Your task to perform on an android device: toggle pop-ups in chrome Image 0: 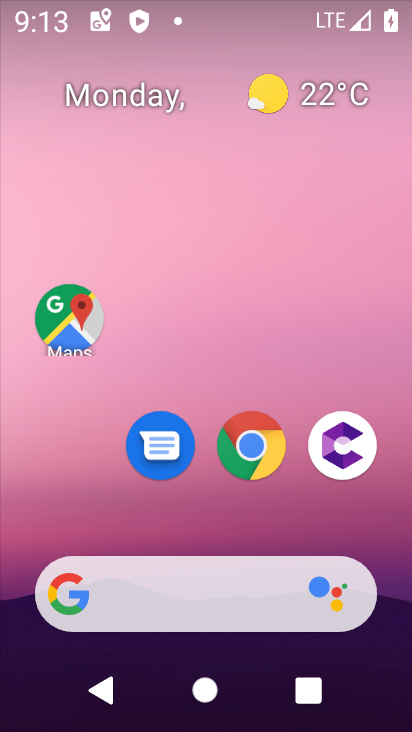
Step 0: press home button
Your task to perform on an android device: toggle pop-ups in chrome Image 1: 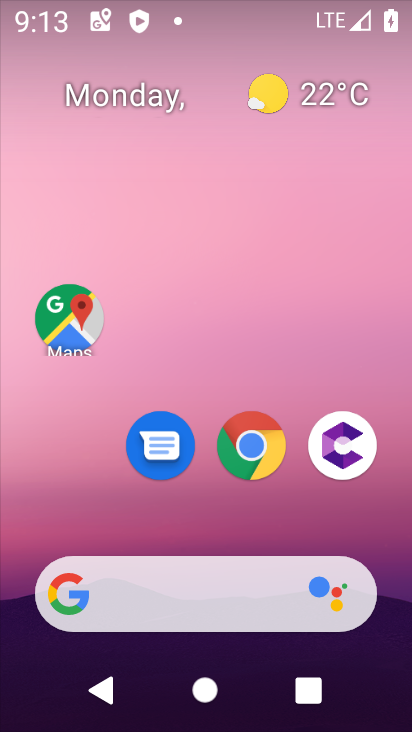
Step 1: click (255, 449)
Your task to perform on an android device: toggle pop-ups in chrome Image 2: 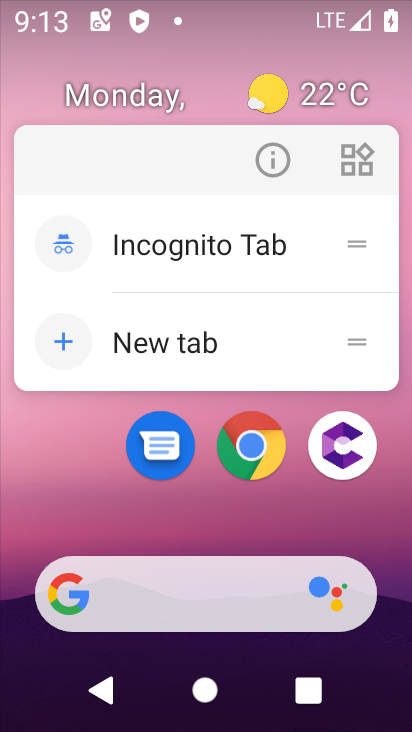
Step 2: click (254, 448)
Your task to perform on an android device: toggle pop-ups in chrome Image 3: 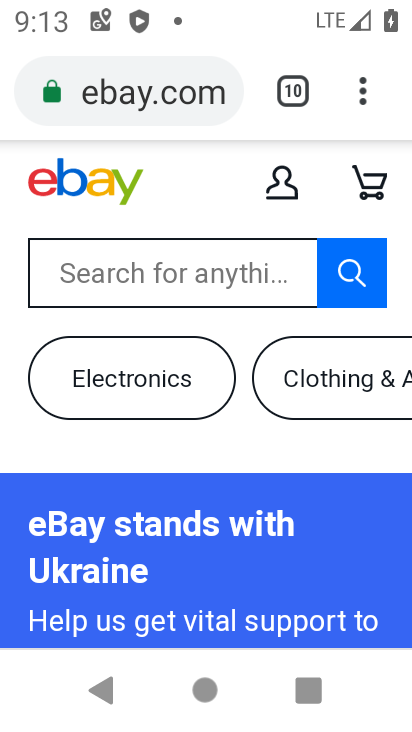
Step 3: drag from (368, 99) to (153, 462)
Your task to perform on an android device: toggle pop-ups in chrome Image 4: 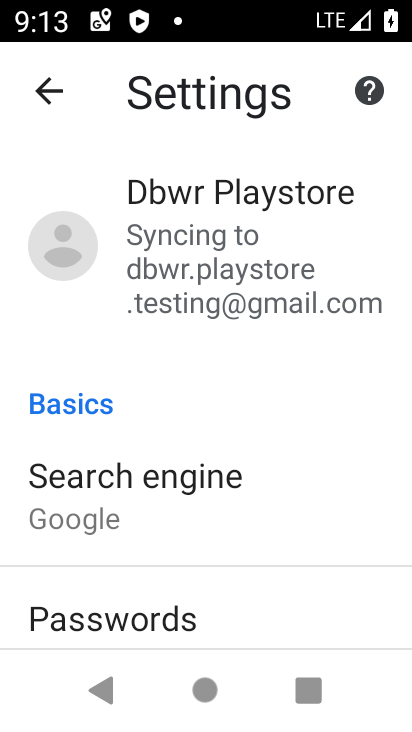
Step 4: drag from (280, 591) to (281, 123)
Your task to perform on an android device: toggle pop-ups in chrome Image 5: 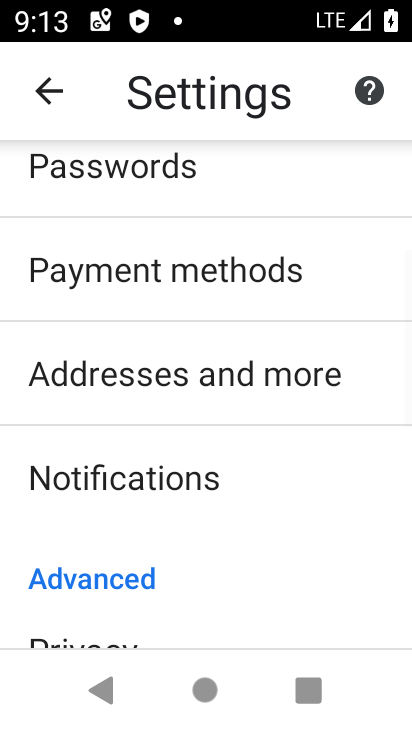
Step 5: drag from (268, 580) to (323, 213)
Your task to perform on an android device: toggle pop-ups in chrome Image 6: 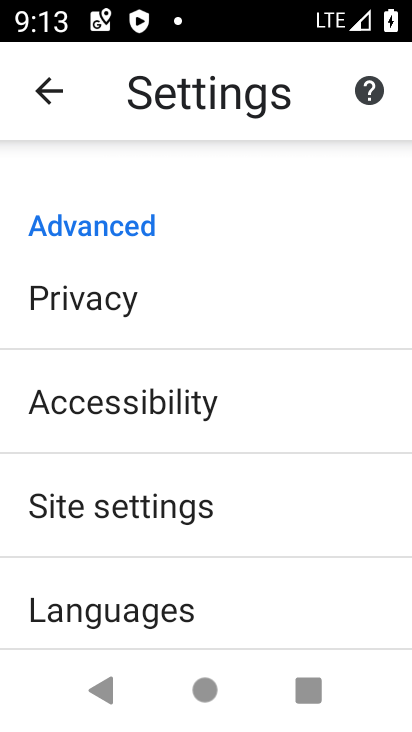
Step 6: click (109, 508)
Your task to perform on an android device: toggle pop-ups in chrome Image 7: 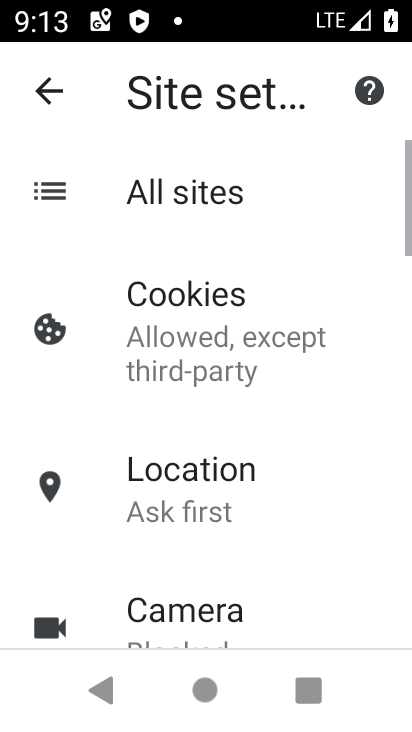
Step 7: drag from (307, 561) to (343, 163)
Your task to perform on an android device: toggle pop-ups in chrome Image 8: 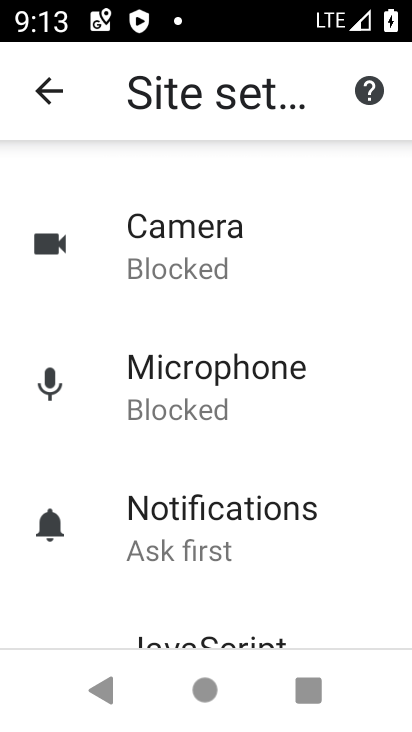
Step 8: drag from (328, 612) to (356, 122)
Your task to perform on an android device: toggle pop-ups in chrome Image 9: 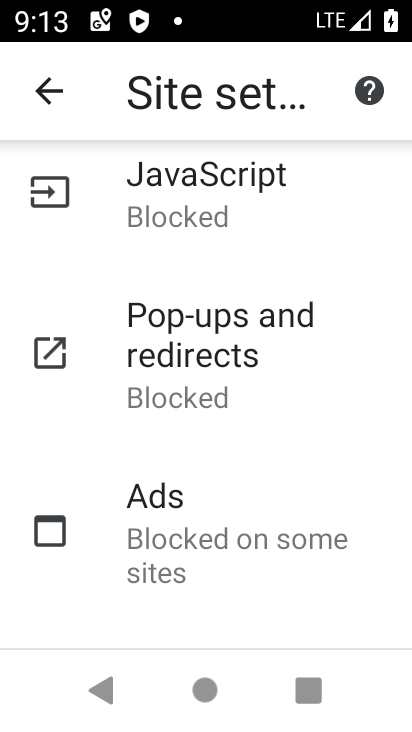
Step 9: click (197, 336)
Your task to perform on an android device: toggle pop-ups in chrome Image 10: 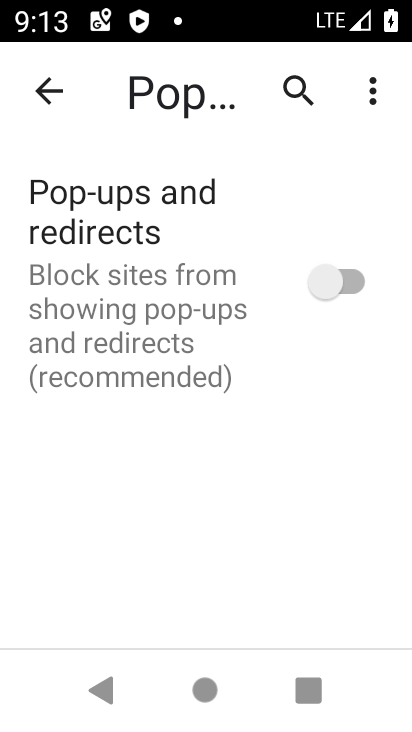
Step 10: click (332, 285)
Your task to perform on an android device: toggle pop-ups in chrome Image 11: 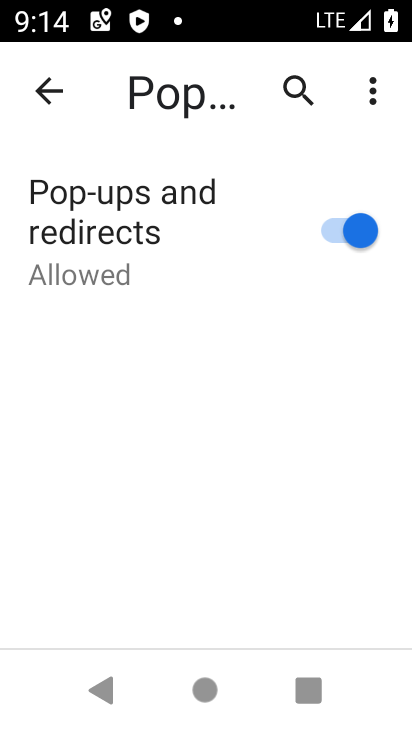
Step 11: task complete